Your task to perform on an android device: Show me the alarms in the clock app Image 0: 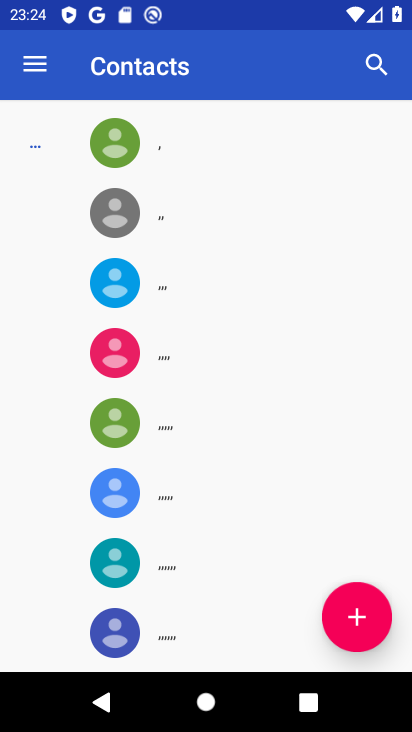
Step 0: press back button
Your task to perform on an android device: Show me the alarms in the clock app Image 1: 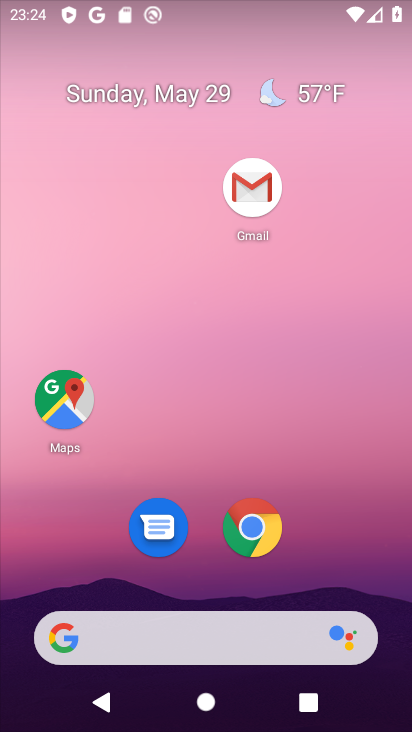
Step 1: drag from (335, 568) to (312, 146)
Your task to perform on an android device: Show me the alarms in the clock app Image 2: 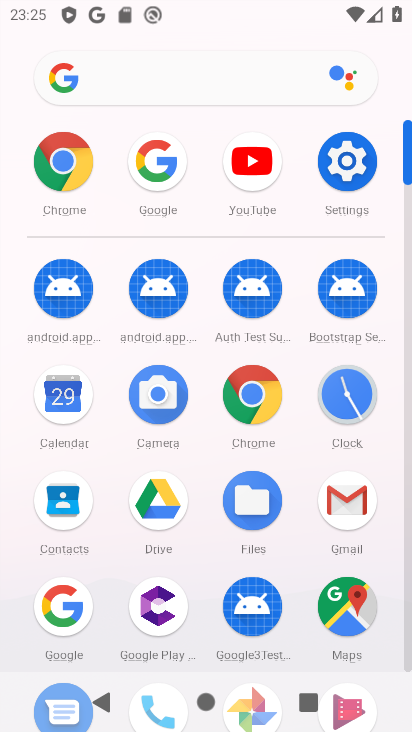
Step 2: click (346, 394)
Your task to perform on an android device: Show me the alarms in the clock app Image 3: 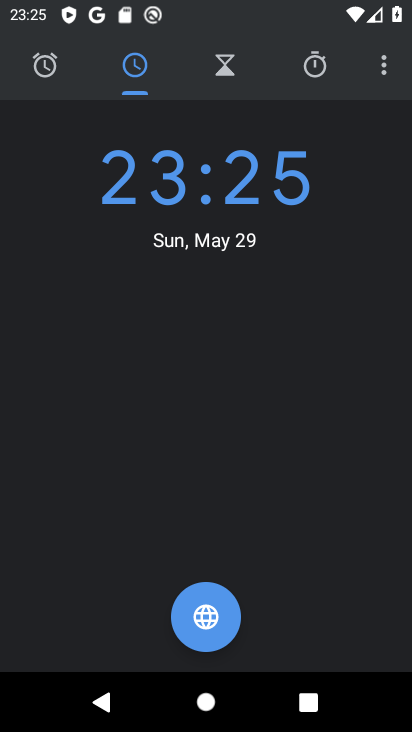
Step 3: click (46, 71)
Your task to perform on an android device: Show me the alarms in the clock app Image 4: 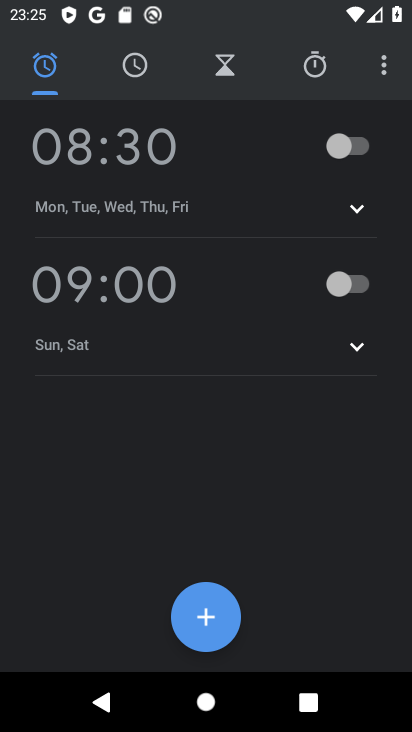
Step 4: task complete